Your task to perform on an android device: Open Youtube and go to "Your channel" Image 0: 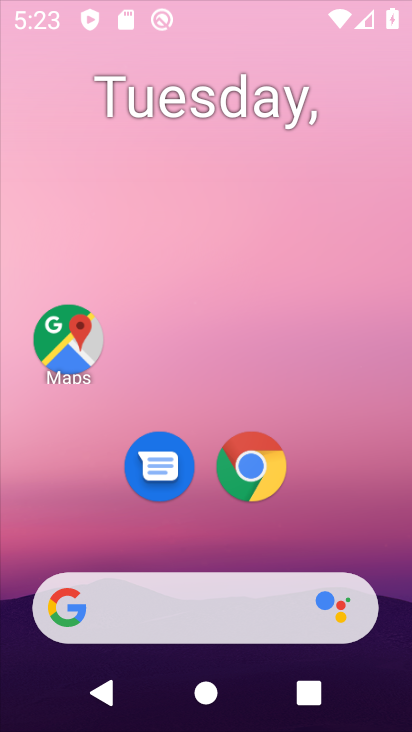
Step 0: press home button
Your task to perform on an android device: Open Youtube and go to "Your channel" Image 1: 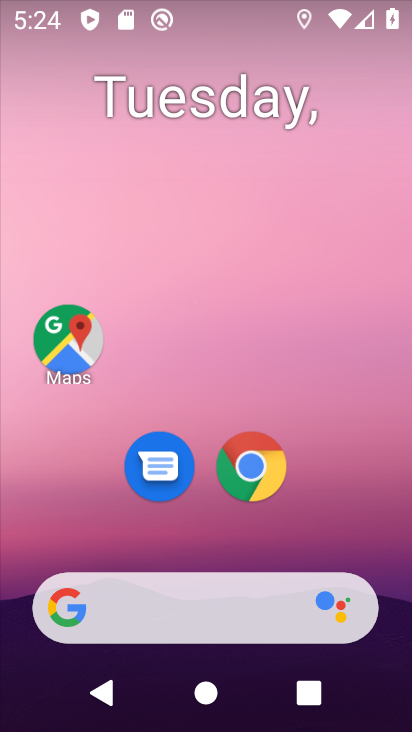
Step 1: drag from (392, 698) to (410, 4)
Your task to perform on an android device: Open Youtube and go to "Your channel" Image 2: 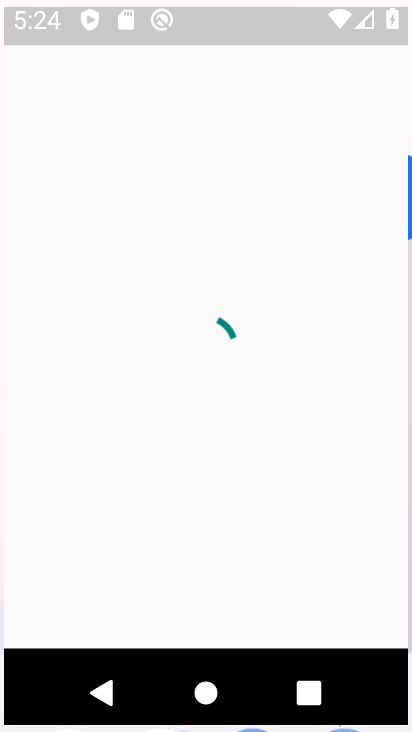
Step 2: click (405, 628)
Your task to perform on an android device: Open Youtube and go to "Your channel" Image 3: 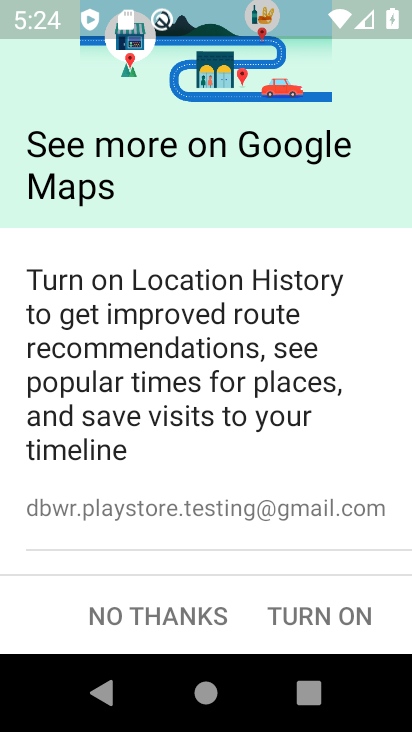
Step 3: press home button
Your task to perform on an android device: Open Youtube and go to "Your channel" Image 4: 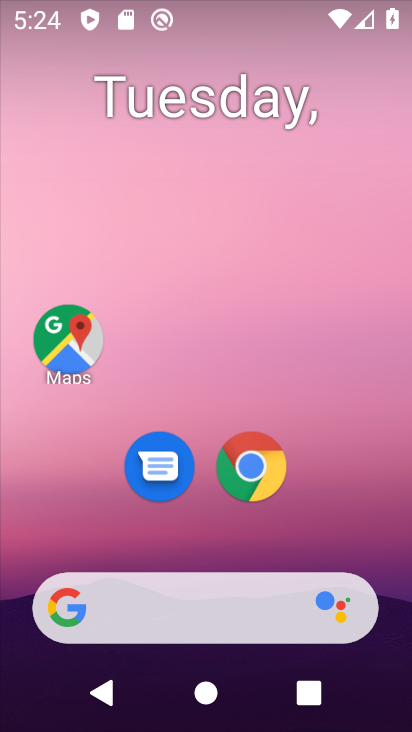
Step 4: drag from (396, 719) to (347, 21)
Your task to perform on an android device: Open Youtube and go to "Your channel" Image 5: 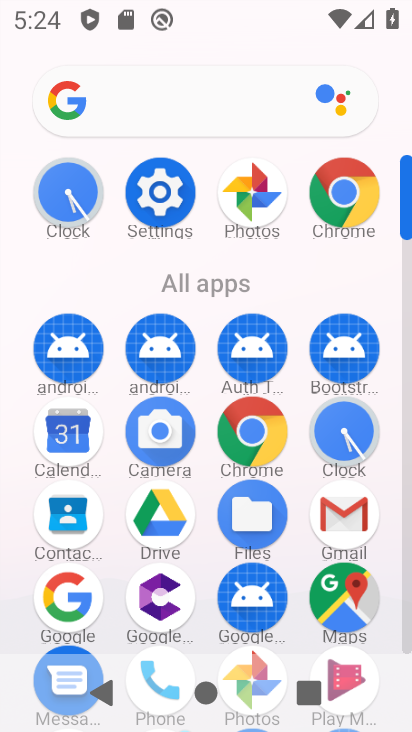
Step 5: click (407, 643)
Your task to perform on an android device: Open Youtube and go to "Your channel" Image 6: 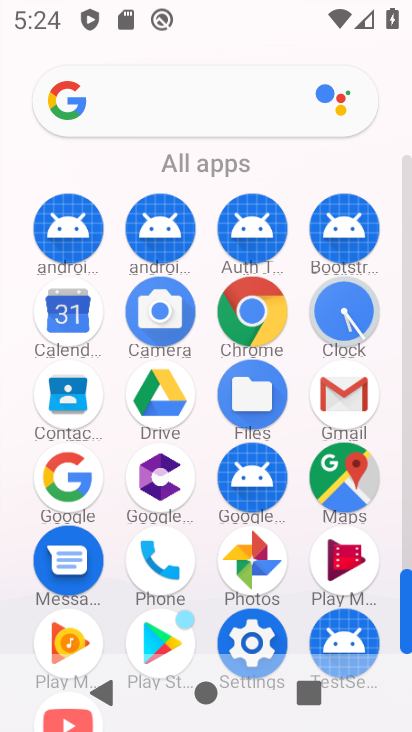
Step 6: drag from (407, 618) to (273, 711)
Your task to perform on an android device: Open Youtube and go to "Your channel" Image 7: 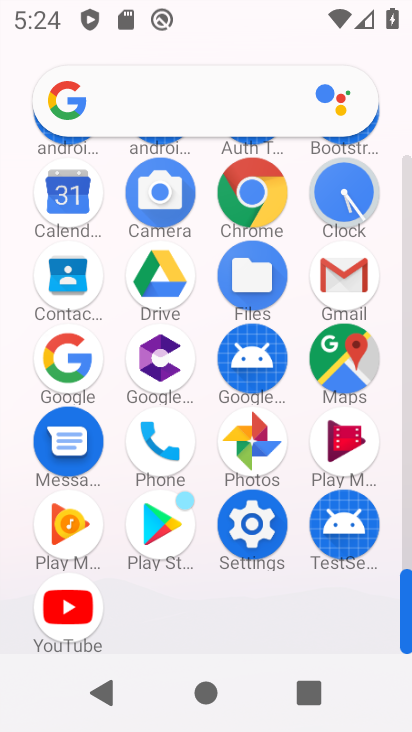
Step 7: click (67, 612)
Your task to perform on an android device: Open Youtube and go to "Your channel" Image 8: 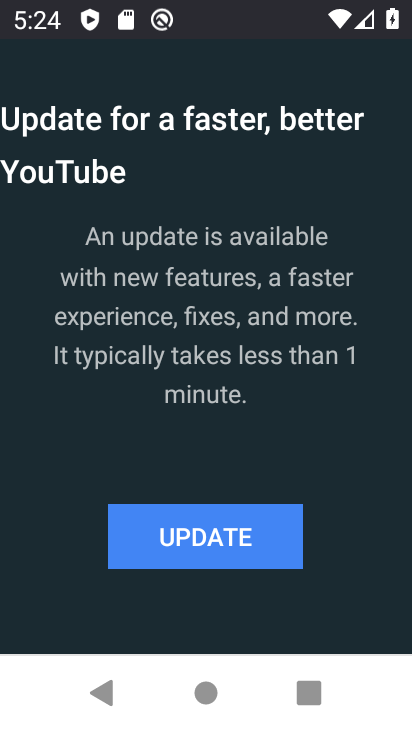
Step 8: click (256, 532)
Your task to perform on an android device: Open Youtube and go to "Your channel" Image 9: 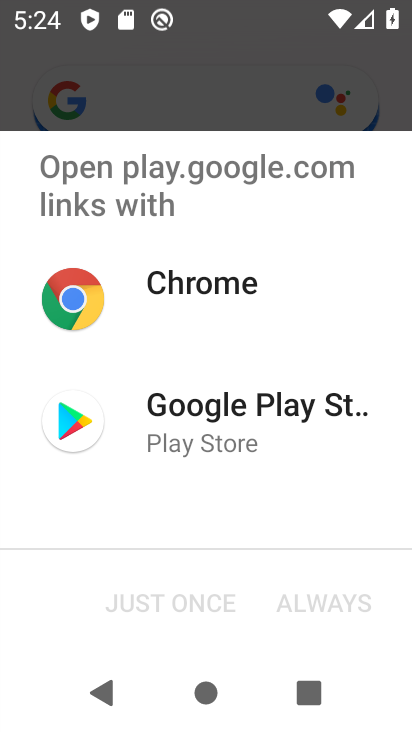
Step 9: click (158, 436)
Your task to perform on an android device: Open Youtube and go to "Your channel" Image 10: 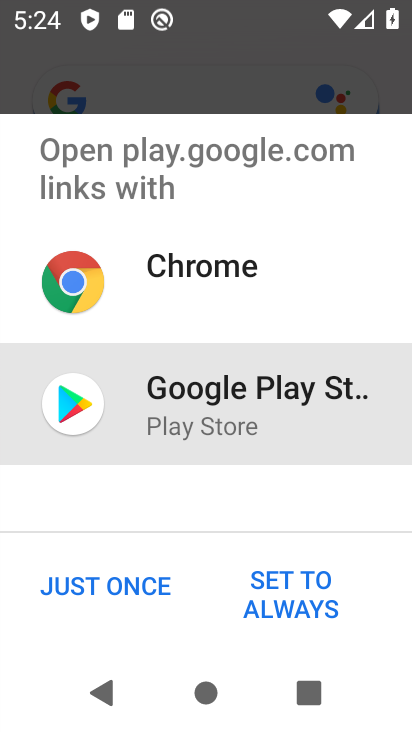
Step 10: click (93, 599)
Your task to perform on an android device: Open Youtube and go to "Your channel" Image 11: 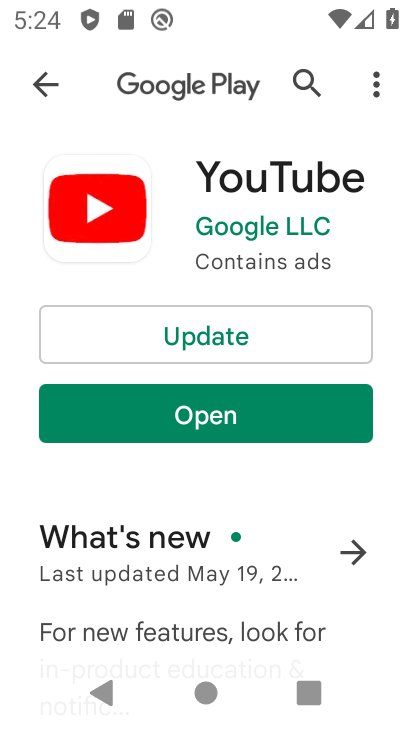
Step 11: click (261, 419)
Your task to perform on an android device: Open Youtube and go to "Your channel" Image 12: 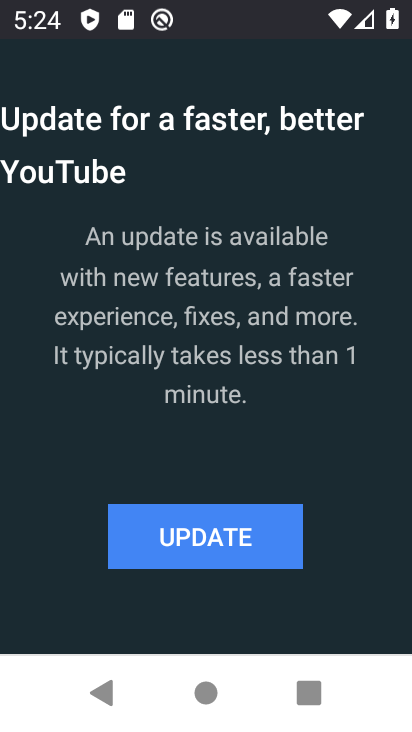
Step 12: click (259, 549)
Your task to perform on an android device: Open Youtube and go to "Your channel" Image 13: 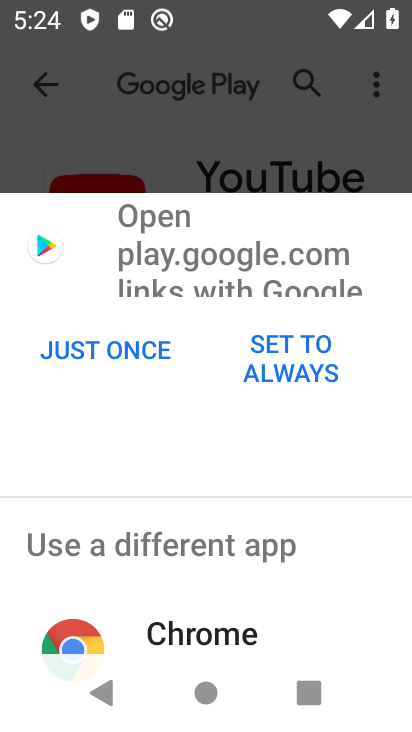
Step 13: click (137, 351)
Your task to perform on an android device: Open Youtube and go to "Your channel" Image 14: 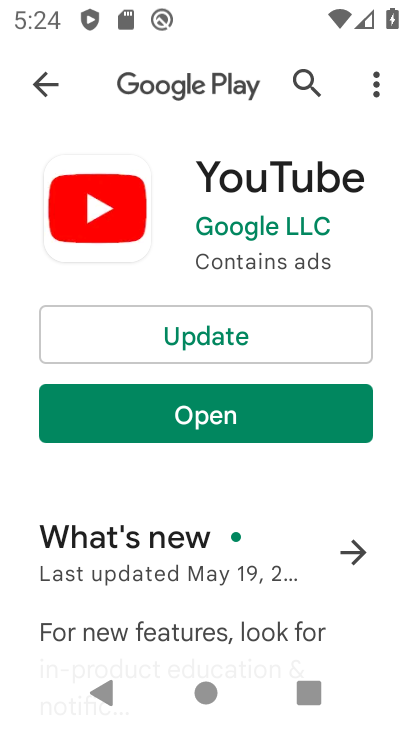
Step 14: click (209, 337)
Your task to perform on an android device: Open Youtube and go to "Your channel" Image 15: 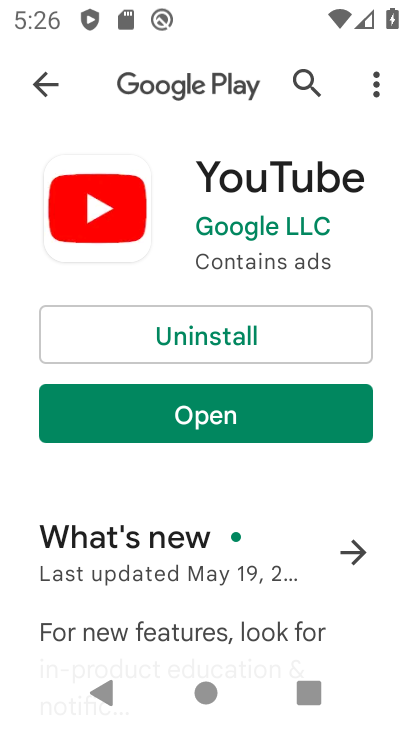
Step 15: click (220, 422)
Your task to perform on an android device: Open Youtube and go to "Your channel" Image 16: 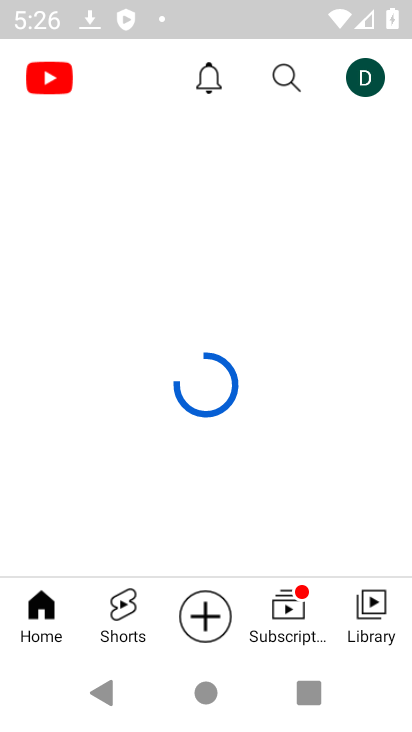
Step 16: click (369, 74)
Your task to perform on an android device: Open Youtube and go to "Your channel" Image 17: 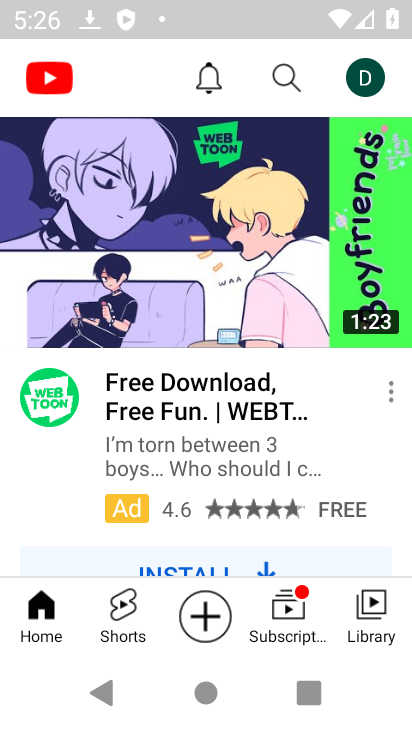
Step 17: click (365, 82)
Your task to perform on an android device: Open Youtube and go to "Your channel" Image 18: 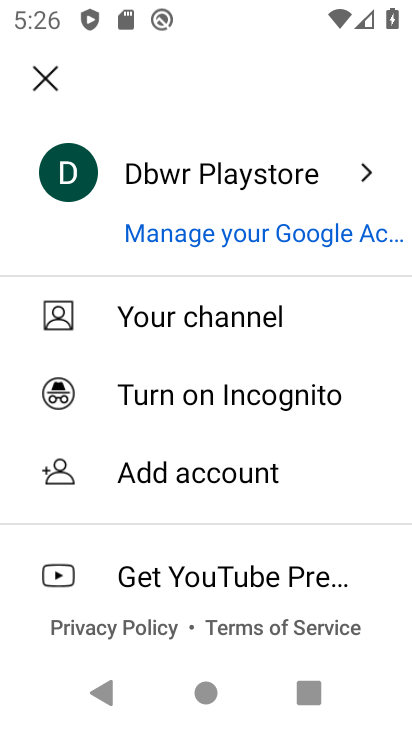
Step 18: click (298, 317)
Your task to perform on an android device: Open Youtube and go to "Your channel" Image 19: 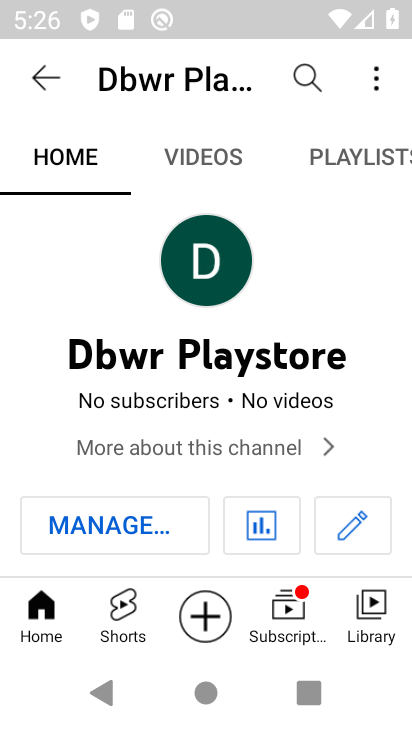
Step 19: task complete